Your task to perform on an android device: make emails show in primary in the gmail app Image 0: 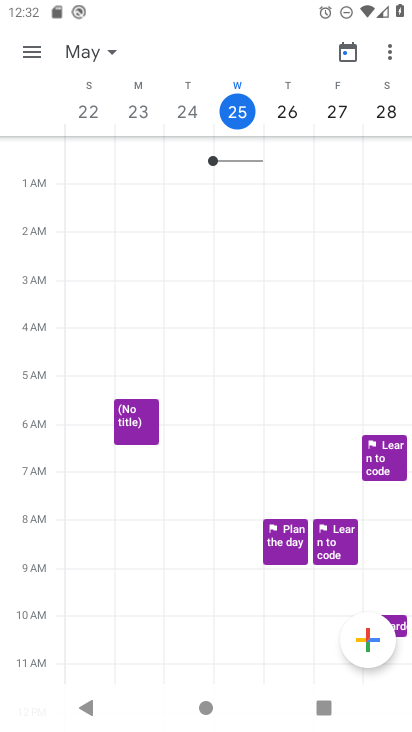
Step 0: press home button
Your task to perform on an android device: make emails show in primary in the gmail app Image 1: 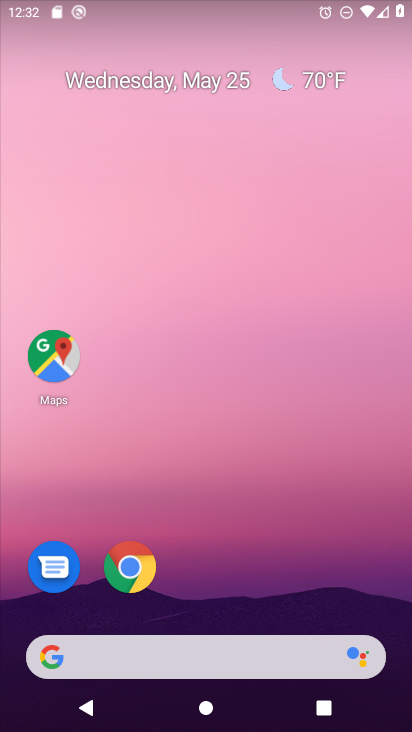
Step 1: drag from (385, 597) to (378, 216)
Your task to perform on an android device: make emails show in primary in the gmail app Image 2: 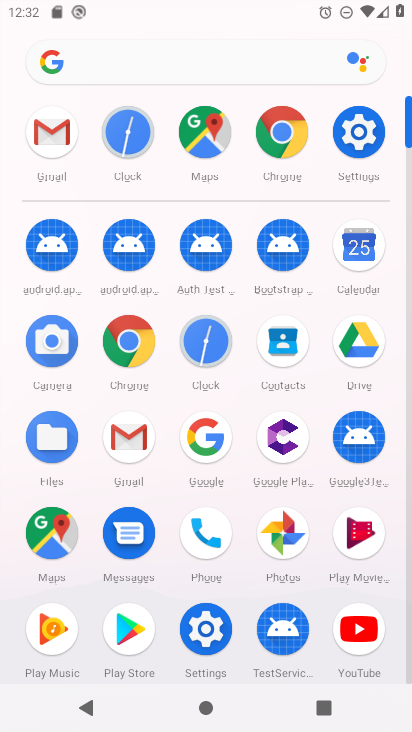
Step 2: click (120, 435)
Your task to perform on an android device: make emails show in primary in the gmail app Image 3: 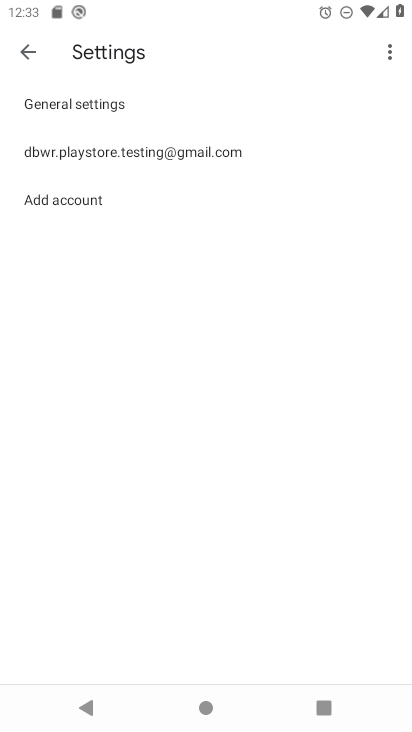
Step 3: click (66, 152)
Your task to perform on an android device: make emails show in primary in the gmail app Image 4: 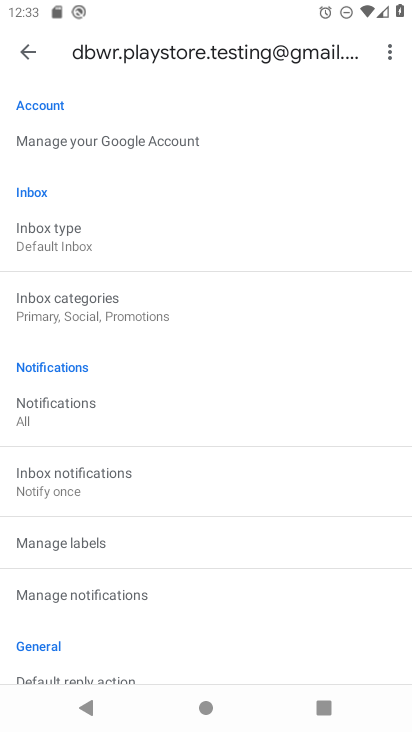
Step 4: click (24, 309)
Your task to perform on an android device: make emails show in primary in the gmail app Image 5: 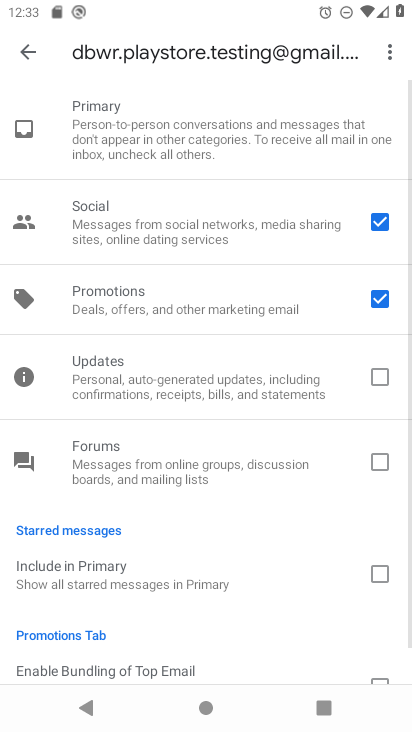
Step 5: click (379, 303)
Your task to perform on an android device: make emails show in primary in the gmail app Image 6: 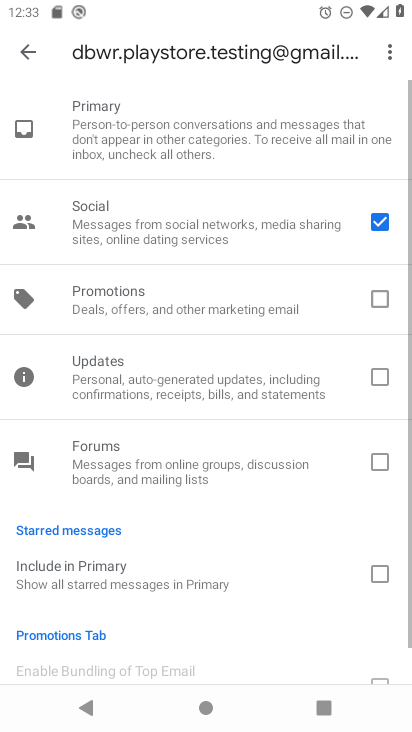
Step 6: click (380, 214)
Your task to perform on an android device: make emails show in primary in the gmail app Image 7: 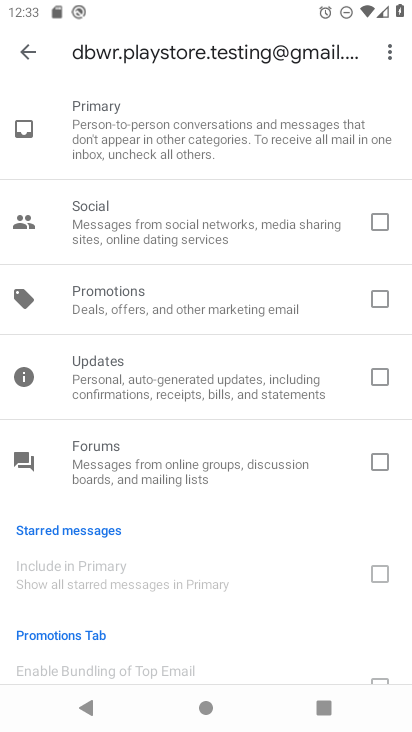
Step 7: click (19, 54)
Your task to perform on an android device: make emails show in primary in the gmail app Image 8: 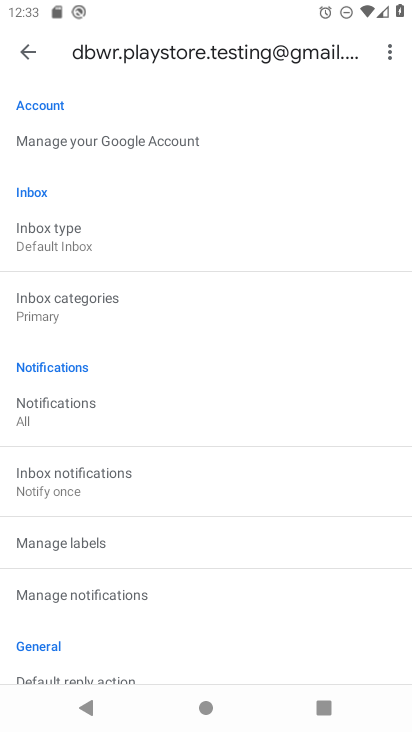
Step 8: task complete